Your task to perform on an android device: refresh tabs in the chrome app Image 0: 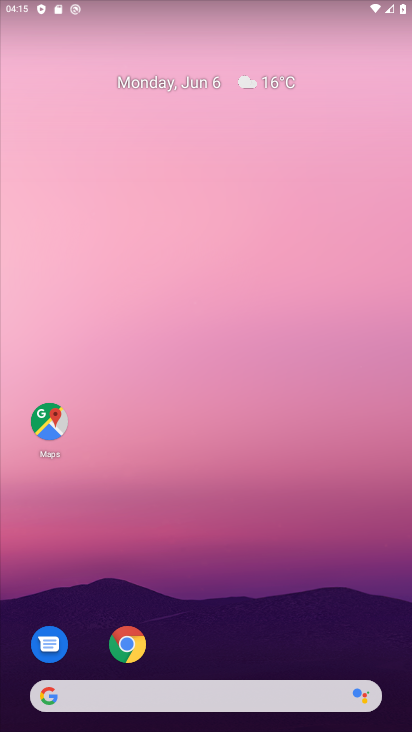
Step 0: click (130, 640)
Your task to perform on an android device: refresh tabs in the chrome app Image 1: 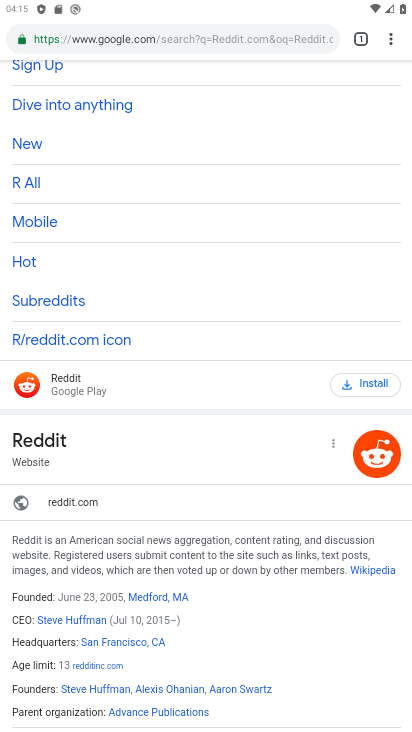
Step 1: click (391, 35)
Your task to perform on an android device: refresh tabs in the chrome app Image 2: 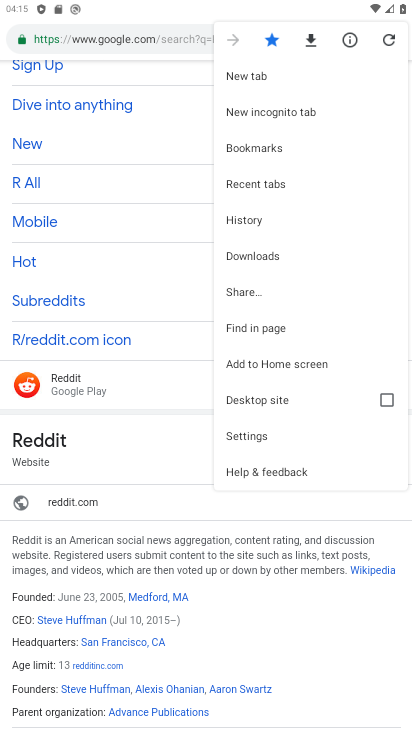
Step 2: click (384, 38)
Your task to perform on an android device: refresh tabs in the chrome app Image 3: 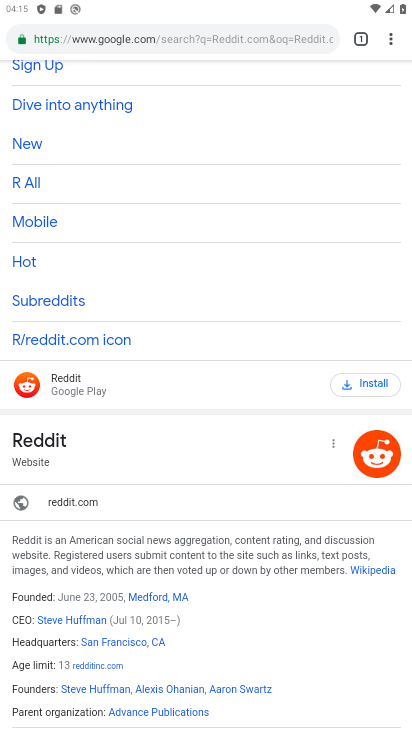
Step 3: task complete